Your task to perform on an android device: turn pop-ups off in chrome Image 0: 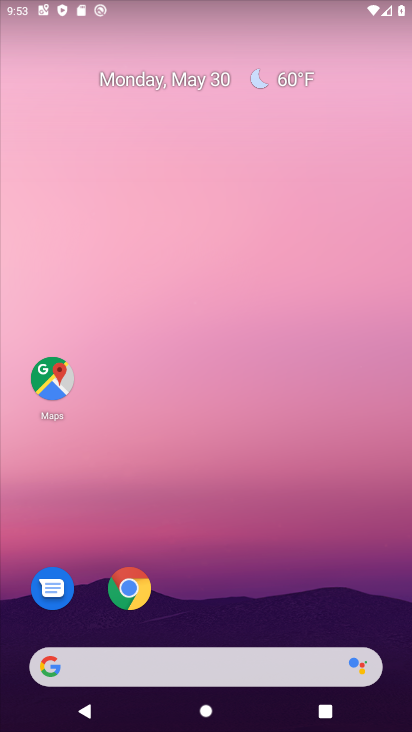
Step 0: click (129, 594)
Your task to perform on an android device: turn pop-ups off in chrome Image 1: 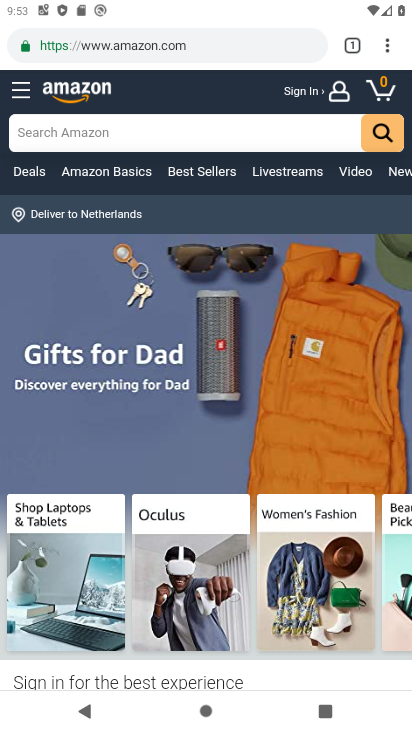
Step 1: click (392, 58)
Your task to perform on an android device: turn pop-ups off in chrome Image 2: 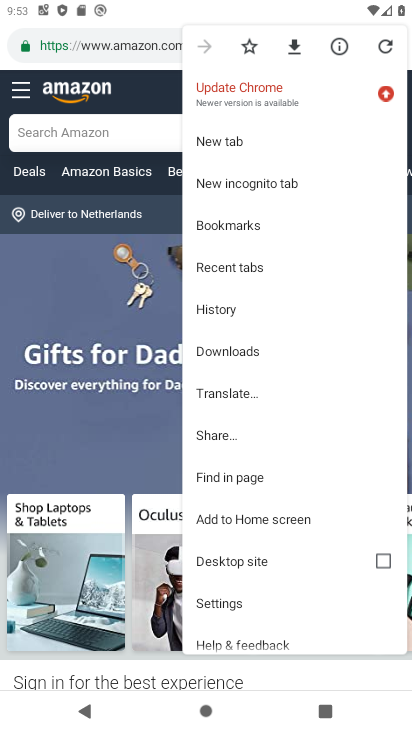
Step 2: click (224, 597)
Your task to perform on an android device: turn pop-ups off in chrome Image 3: 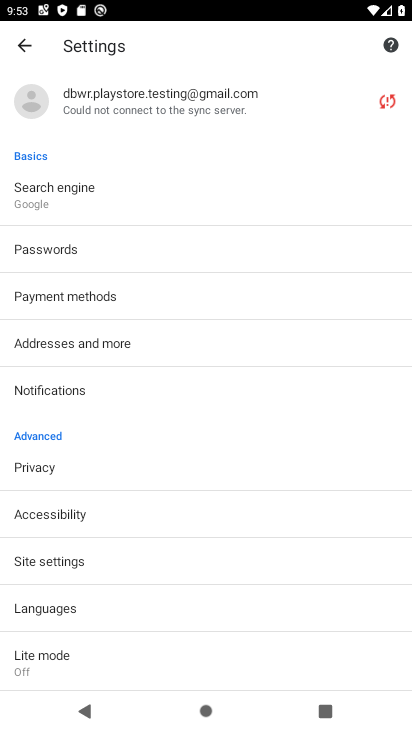
Step 3: click (96, 501)
Your task to perform on an android device: turn pop-ups off in chrome Image 4: 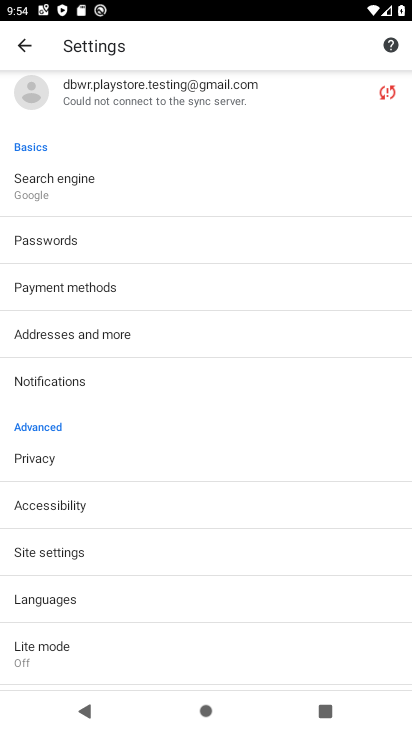
Step 4: click (59, 550)
Your task to perform on an android device: turn pop-ups off in chrome Image 5: 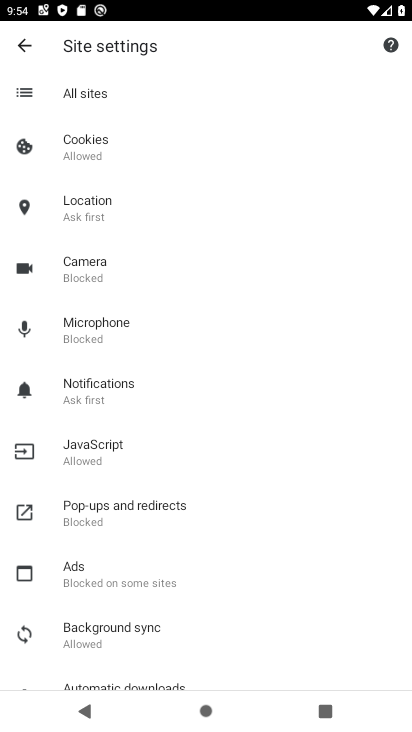
Step 5: click (197, 507)
Your task to perform on an android device: turn pop-ups off in chrome Image 6: 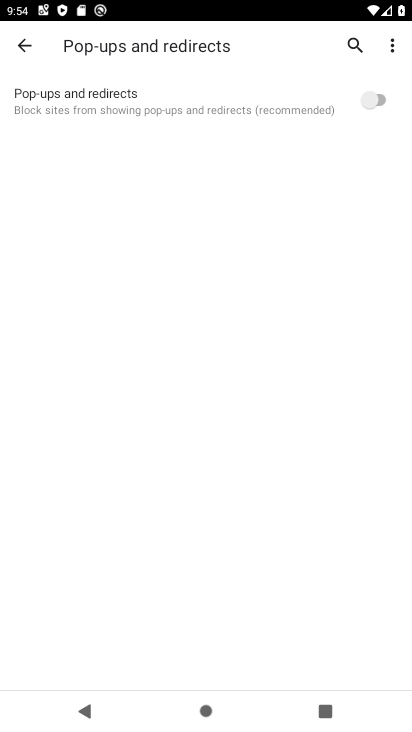
Step 6: task complete